Your task to perform on an android device: set default search engine in the chrome app Image 0: 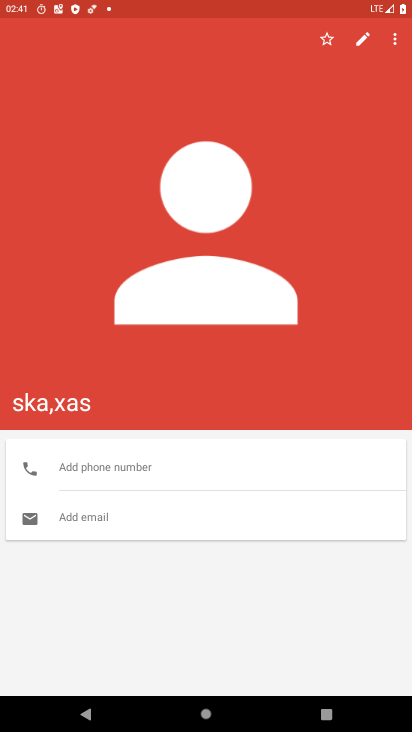
Step 0: press home button
Your task to perform on an android device: set default search engine in the chrome app Image 1: 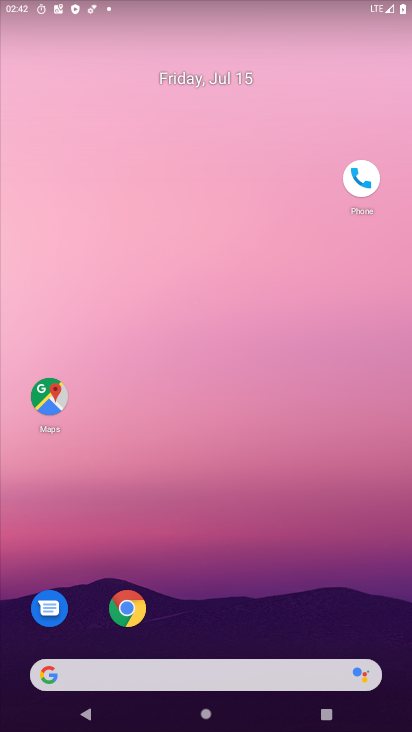
Step 1: drag from (200, 588) to (237, 239)
Your task to perform on an android device: set default search engine in the chrome app Image 2: 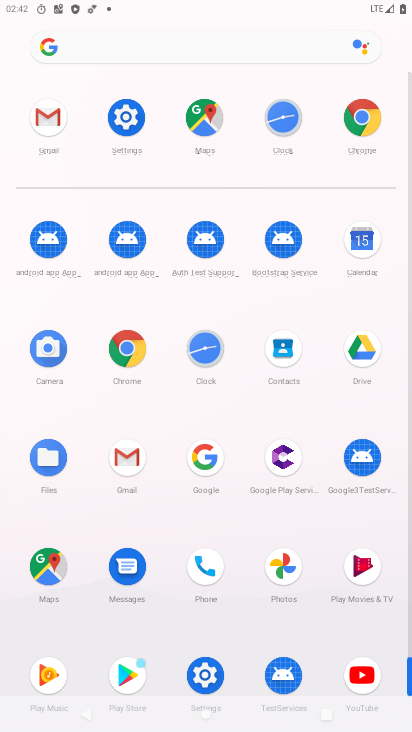
Step 2: drag from (178, 493) to (243, 158)
Your task to perform on an android device: set default search engine in the chrome app Image 3: 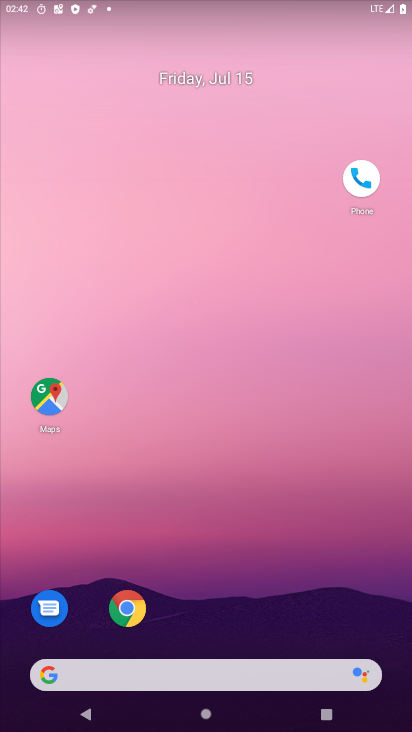
Step 3: click (118, 354)
Your task to perform on an android device: set default search engine in the chrome app Image 4: 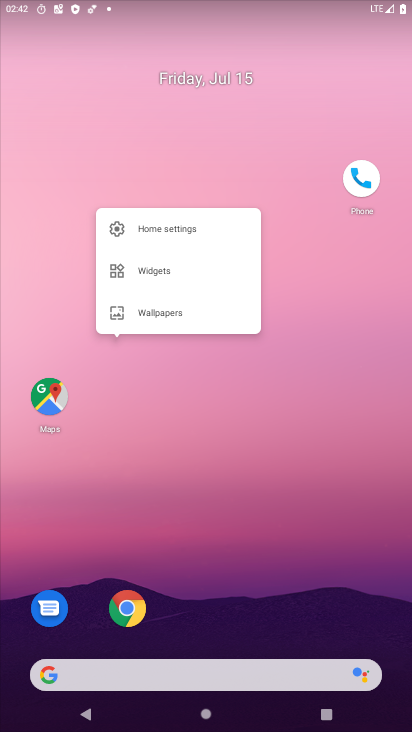
Step 4: click (116, 601)
Your task to perform on an android device: set default search engine in the chrome app Image 5: 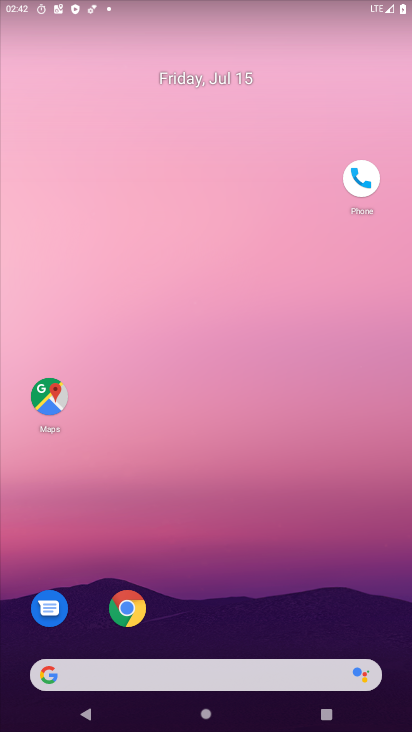
Step 5: click (123, 604)
Your task to perform on an android device: set default search engine in the chrome app Image 6: 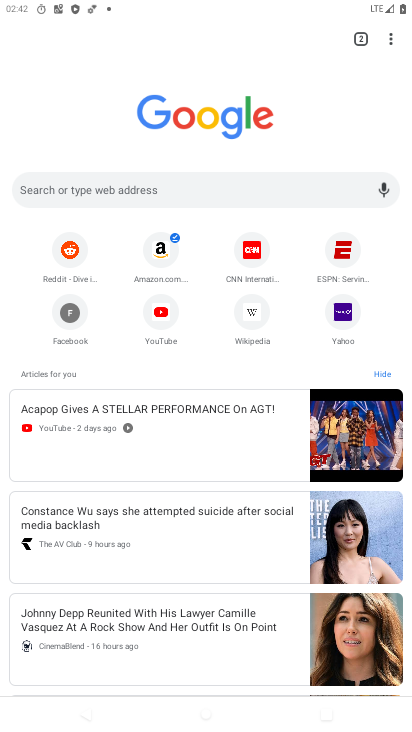
Step 6: drag from (390, 41) to (255, 328)
Your task to perform on an android device: set default search engine in the chrome app Image 7: 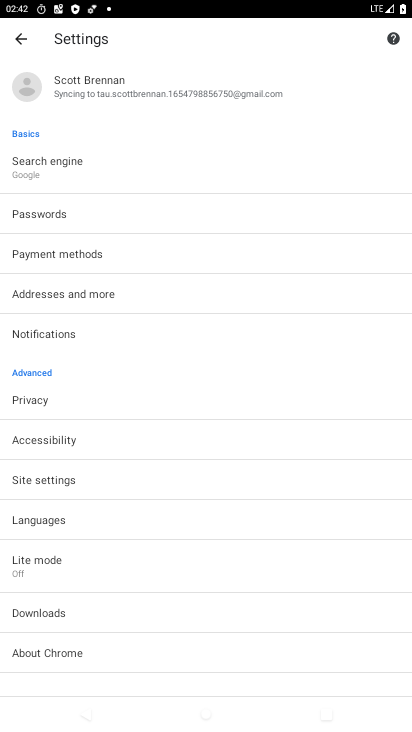
Step 7: drag from (121, 601) to (164, 286)
Your task to perform on an android device: set default search engine in the chrome app Image 8: 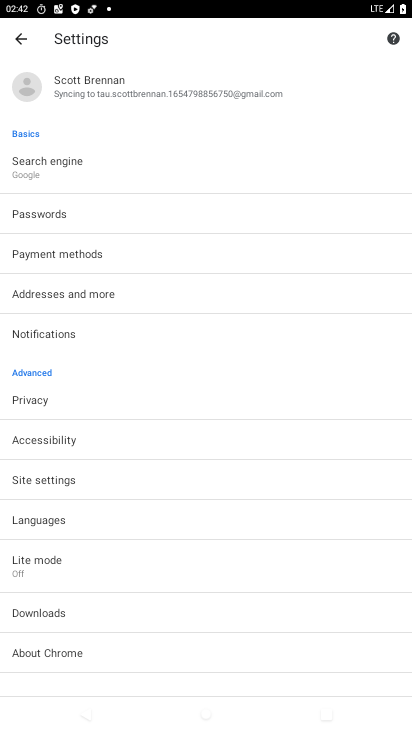
Step 8: click (63, 472)
Your task to perform on an android device: set default search engine in the chrome app Image 9: 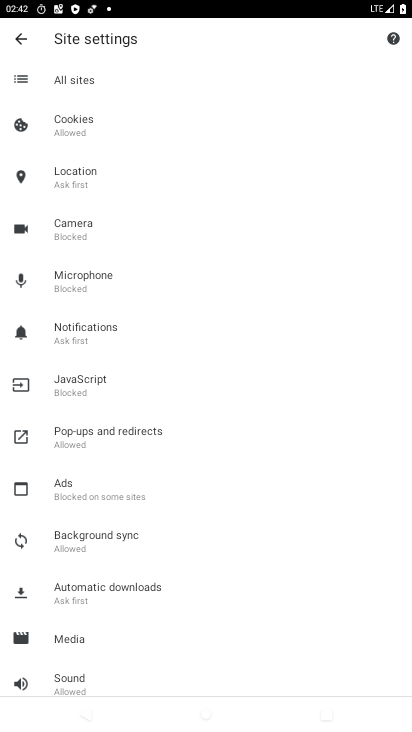
Step 9: click (19, 44)
Your task to perform on an android device: set default search engine in the chrome app Image 10: 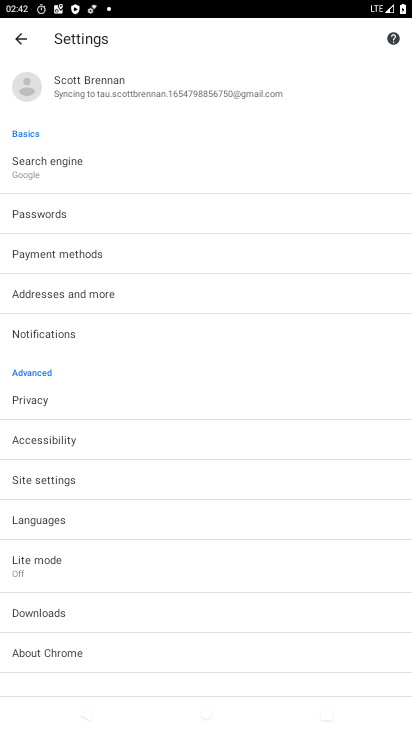
Step 10: click (30, 179)
Your task to perform on an android device: set default search engine in the chrome app Image 11: 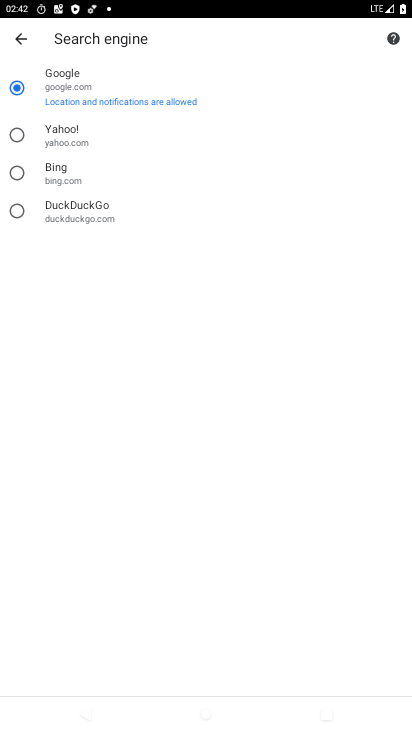
Step 11: task complete